Your task to perform on an android device: see tabs open on other devices in the chrome app Image 0: 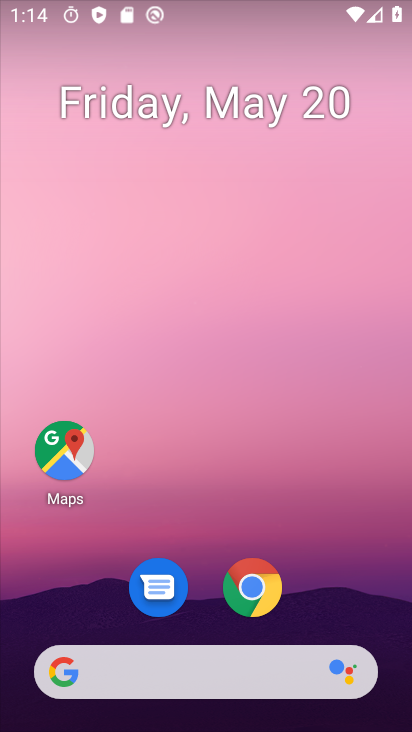
Step 0: click (259, 593)
Your task to perform on an android device: see tabs open on other devices in the chrome app Image 1: 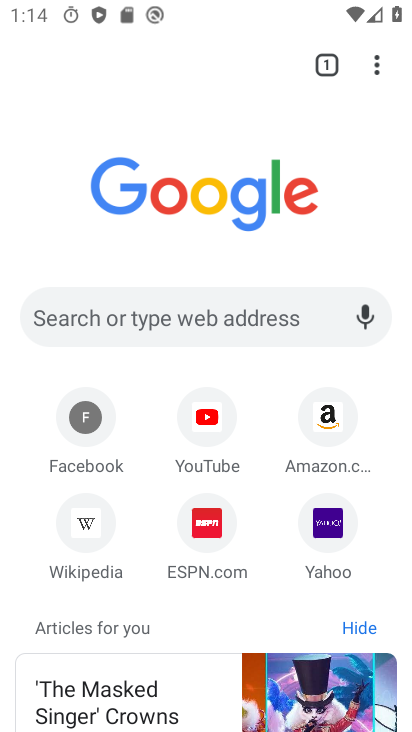
Step 1: task complete